Your task to perform on an android device: Open display settings Image 0: 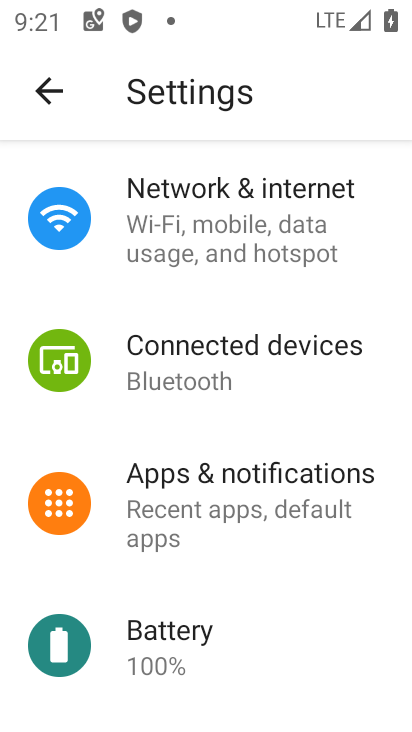
Step 0: press home button
Your task to perform on an android device: Open display settings Image 1: 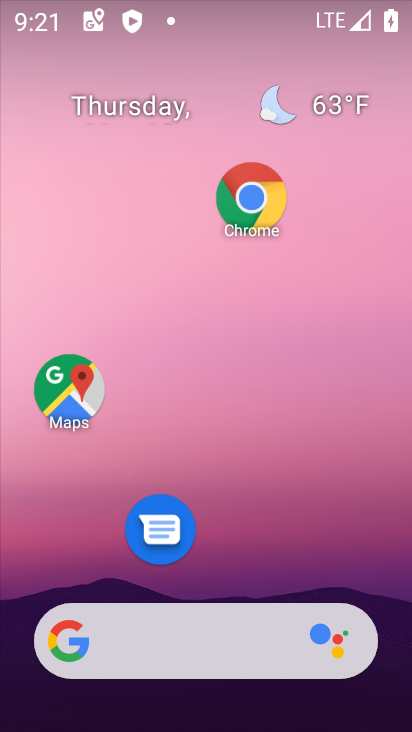
Step 1: drag from (322, 566) to (411, 34)
Your task to perform on an android device: Open display settings Image 2: 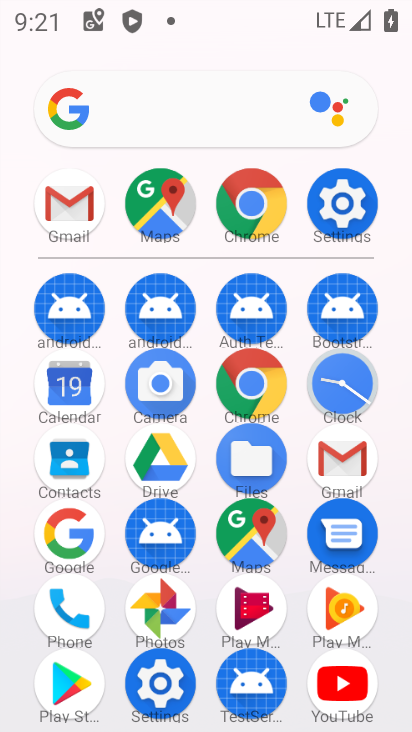
Step 2: click (333, 223)
Your task to perform on an android device: Open display settings Image 3: 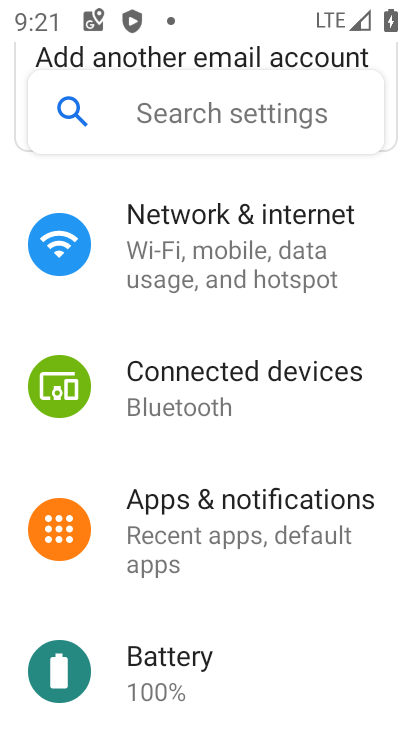
Step 3: drag from (225, 622) to (251, 377)
Your task to perform on an android device: Open display settings Image 4: 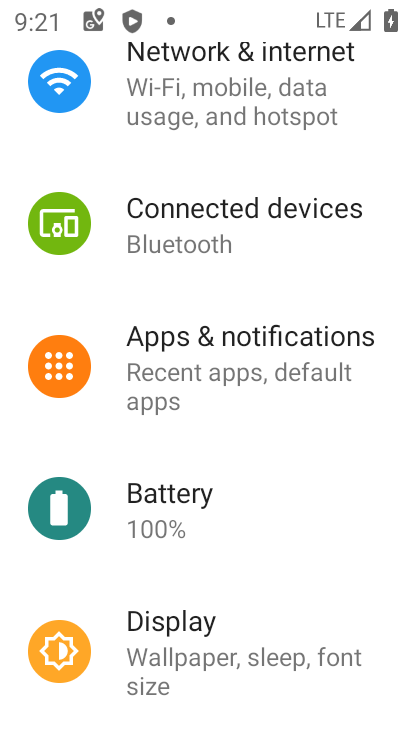
Step 4: click (193, 638)
Your task to perform on an android device: Open display settings Image 5: 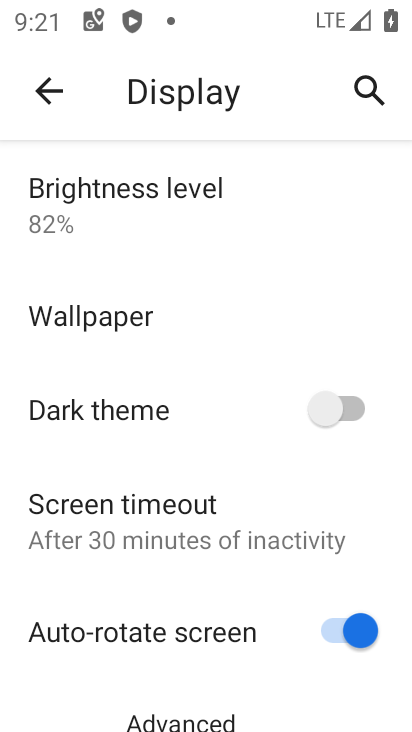
Step 5: task complete